Your task to perform on an android device: Go to network settings Image 0: 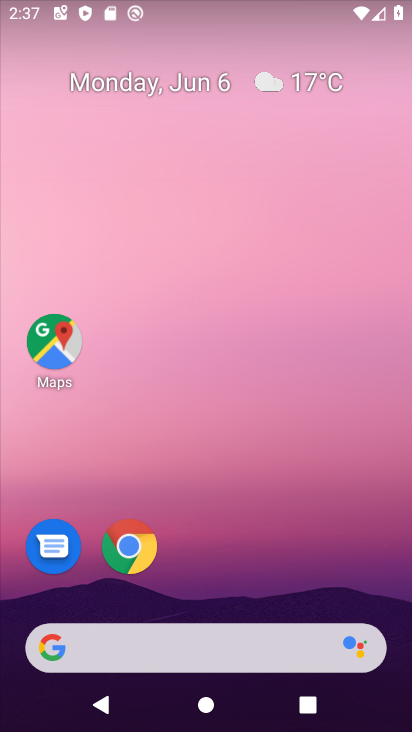
Step 0: drag from (263, 556) to (254, 216)
Your task to perform on an android device: Go to network settings Image 1: 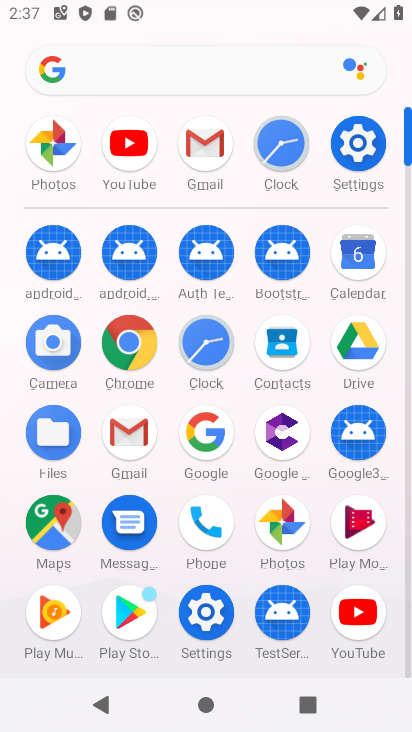
Step 1: click (370, 163)
Your task to perform on an android device: Go to network settings Image 2: 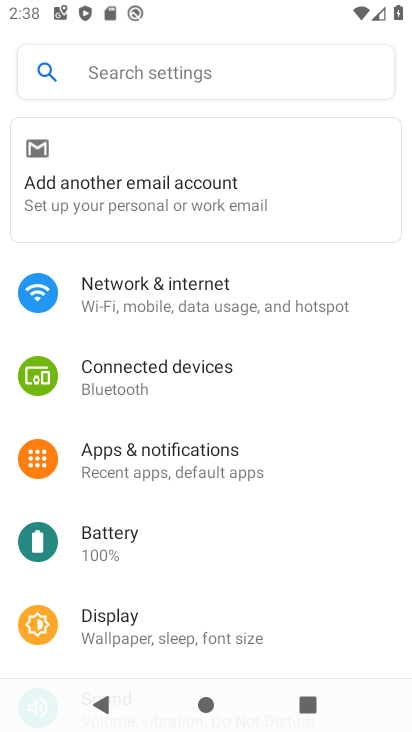
Step 2: click (207, 322)
Your task to perform on an android device: Go to network settings Image 3: 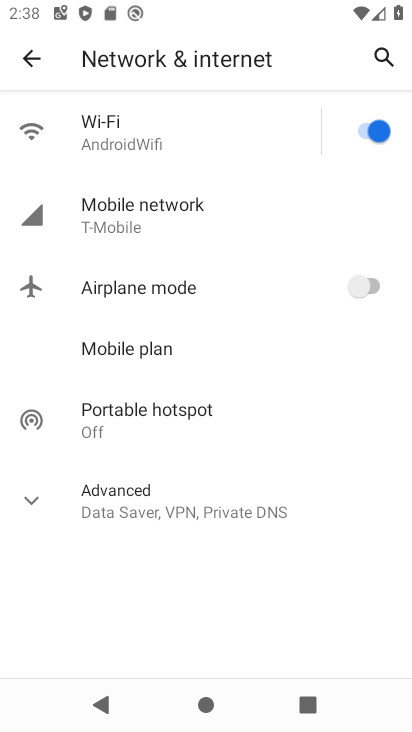
Step 3: task complete